Your task to perform on an android device: Open the web browser Image 0: 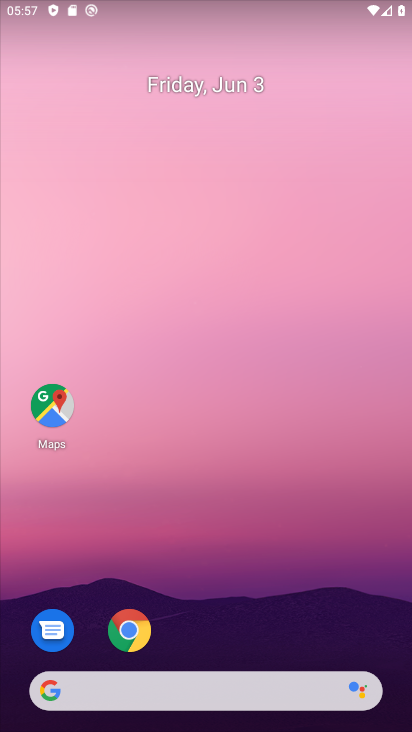
Step 0: click (78, 680)
Your task to perform on an android device: Open the web browser Image 1: 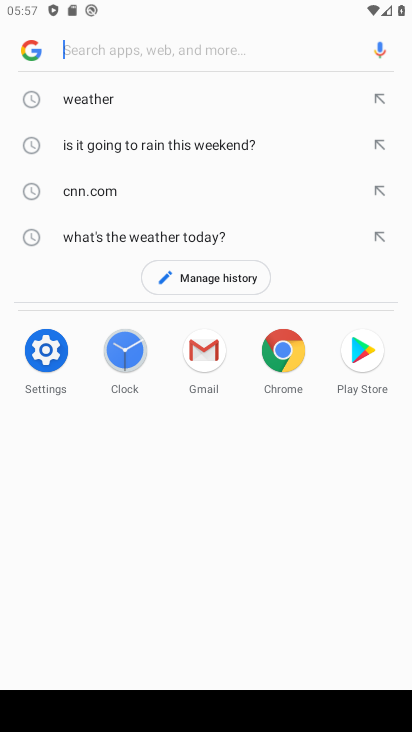
Step 1: task complete